Your task to perform on an android device: change alarm snooze length Image 0: 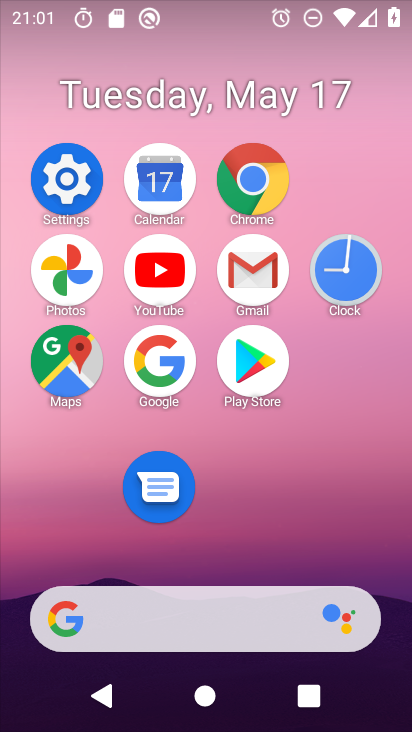
Step 0: click (334, 272)
Your task to perform on an android device: change alarm snooze length Image 1: 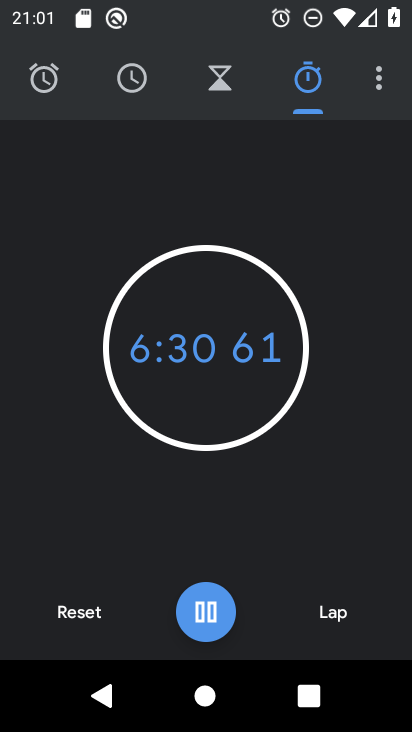
Step 1: click (389, 89)
Your task to perform on an android device: change alarm snooze length Image 2: 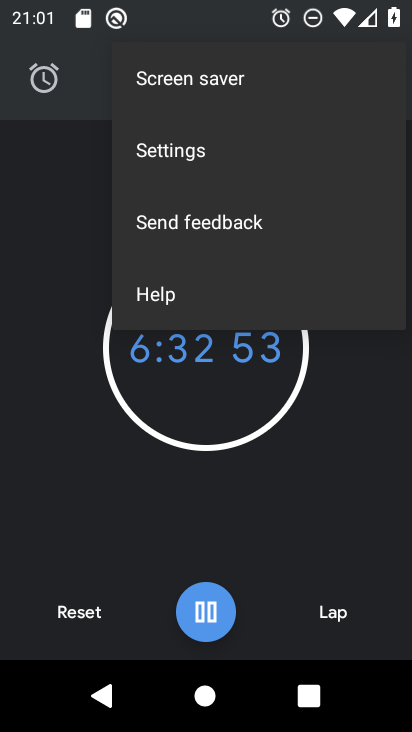
Step 2: click (177, 149)
Your task to perform on an android device: change alarm snooze length Image 3: 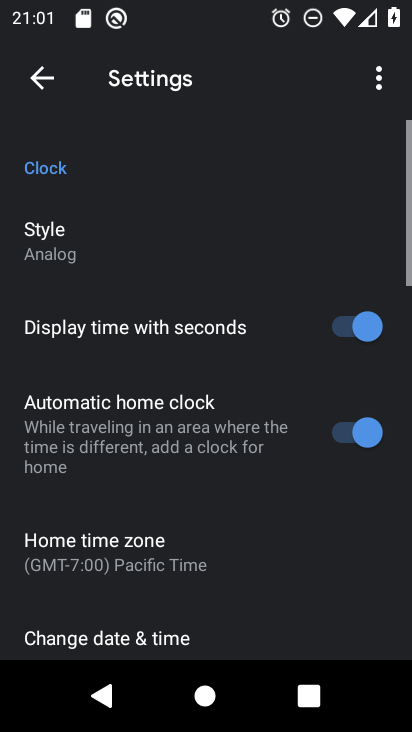
Step 3: drag from (253, 535) to (188, 179)
Your task to perform on an android device: change alarm snooze length Image 4: 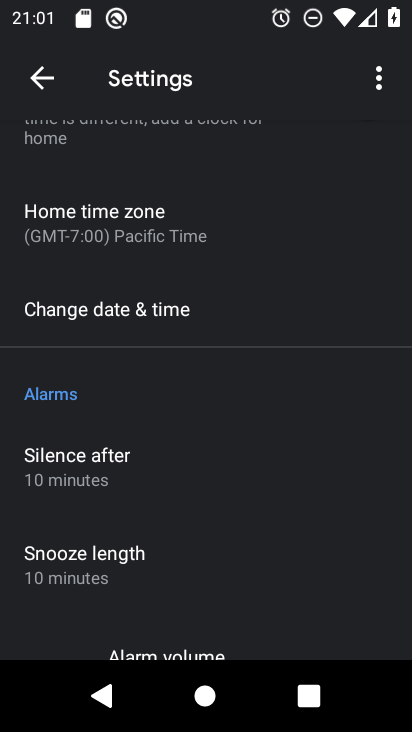
Step 4: drag from (209, 453) to (222, 192)
Your task to perform on an android device: change alarm snooze length Image 5: 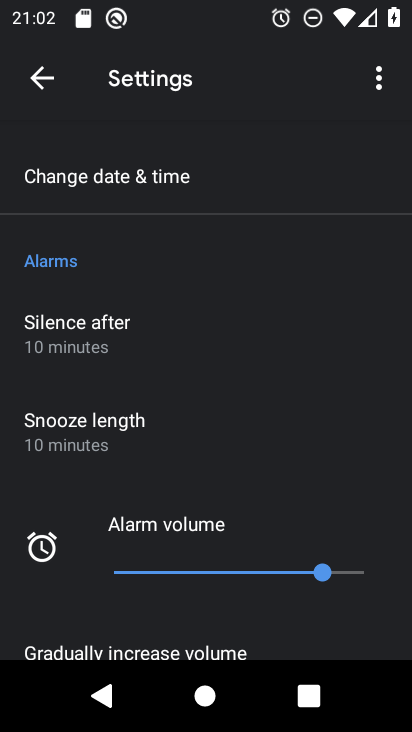
Step 5: click (147, 404)
Your task to perform on an android device: change alarm snooze length Image 6: 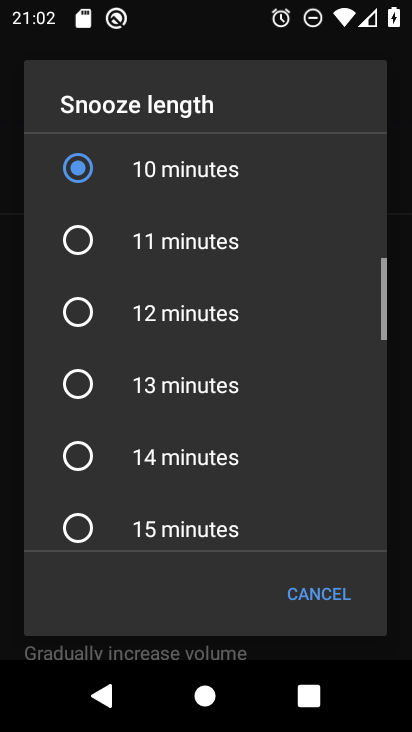
Step 6: click (153, 223)
Your task to perform on an android device: change alarm snooze length Image 7: 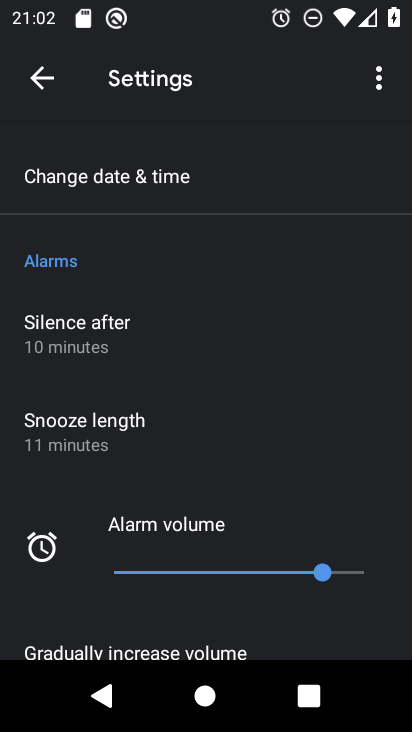
Step 7: task complete